Your task to perform on an android device: turn on wifi Image 0: 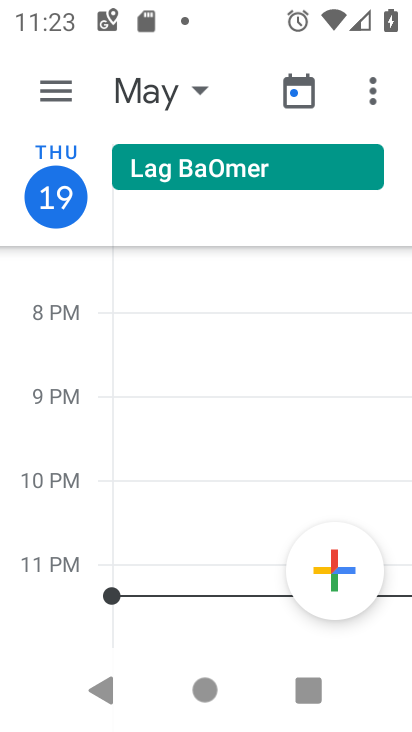
Step 0: task complete